Your task to perform on an android device: Is it going to rain this weekend? Image 0: 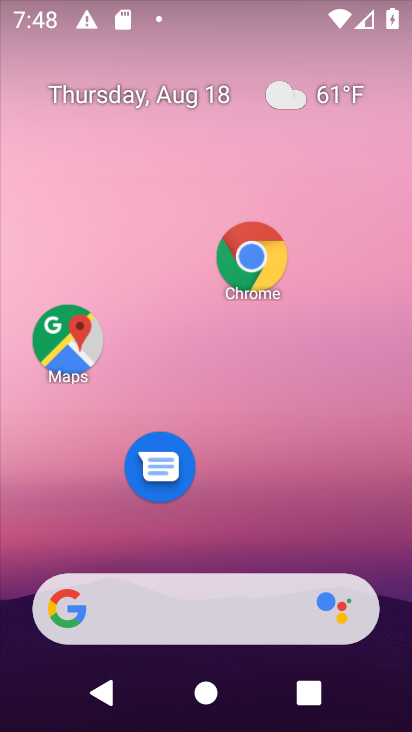
Step 0: click (236, 602)
Your task to perform on an android device: Is it going to rain this weekend? Image 1: 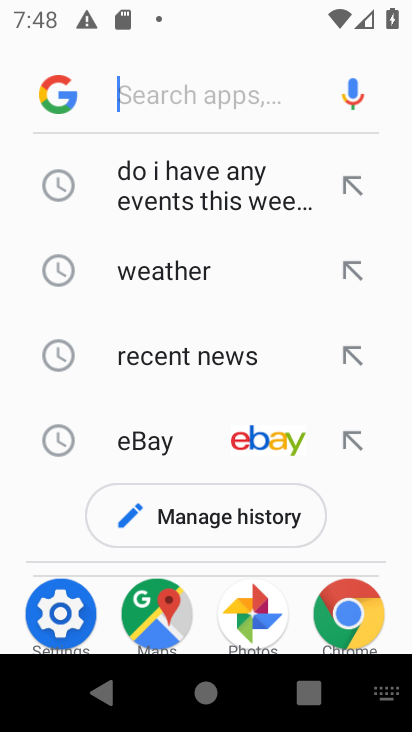
Step 1: type "Is it going to rain this weekend?"
Your task to perform on an android device: Is it going to rain this weekend? Image 2: 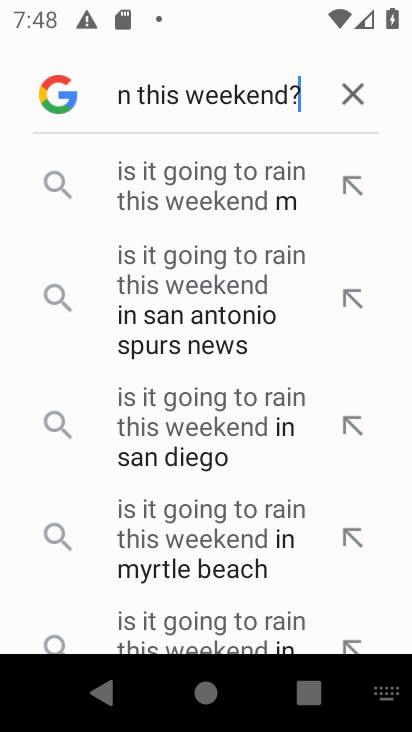
Step 2: press enter
Your task to perform on an android device: Is it going to rain this weekend? Image 3: 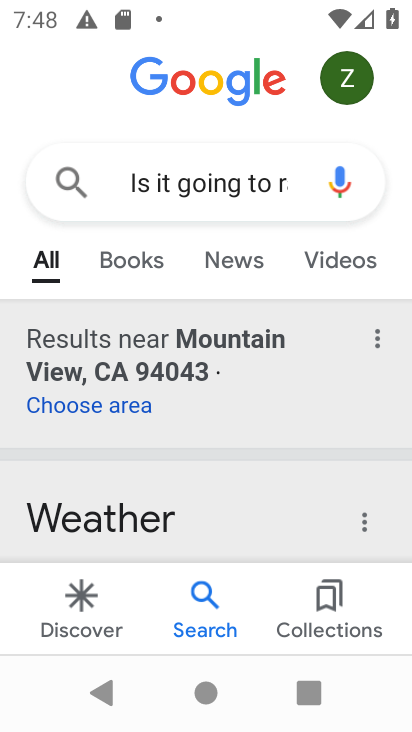
Step 3: task complete